Your task to perform on an android device: Go to ESPN.com Image 0: 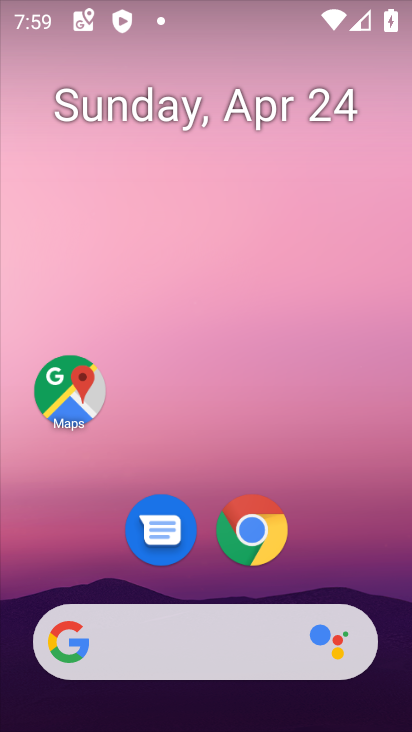
Step 0: click (251, 537)
Your task to perform on an android device: Go to ESPN.com Image 1: 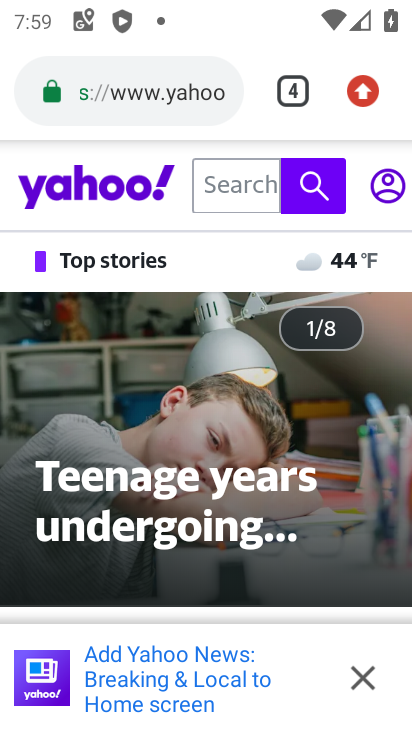
Step 1: click (183, 102)
Your task to perform on an android device: Go to ESPN.com Image 2: 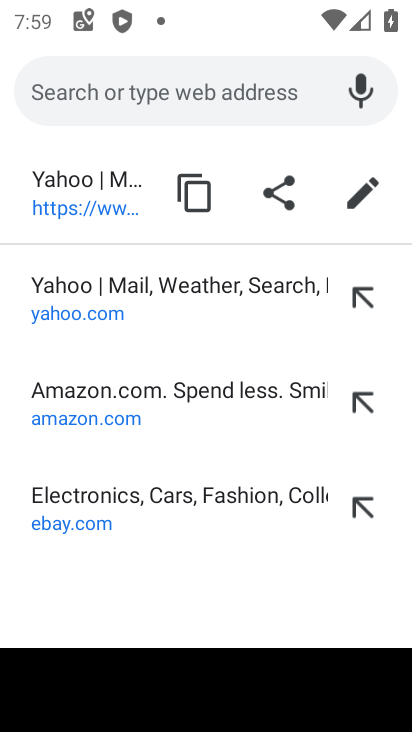
Step 2: type "espn.com"
Your task to perform on an android device: Go to ESPN.com Image 3: 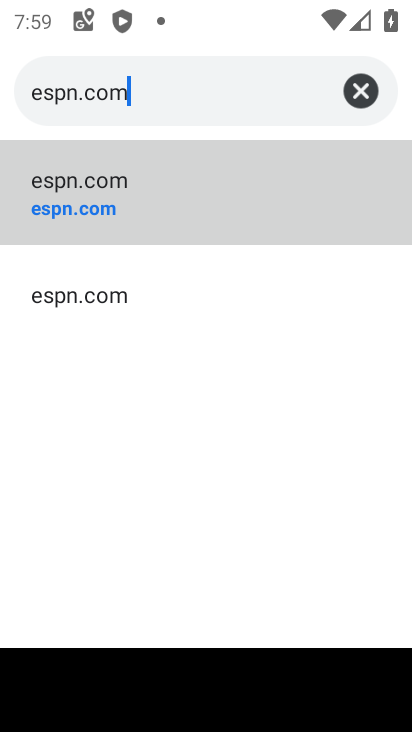
Step 3: type ""
Your task to perform on an android device: Go to ESPN.com Image 4: 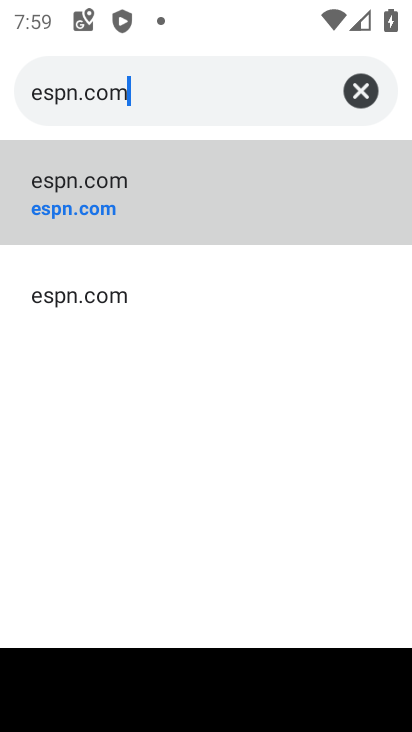
Step 4: click (206, 204)
Your task to perform on an android device: Go to ESPN.com Image 5: 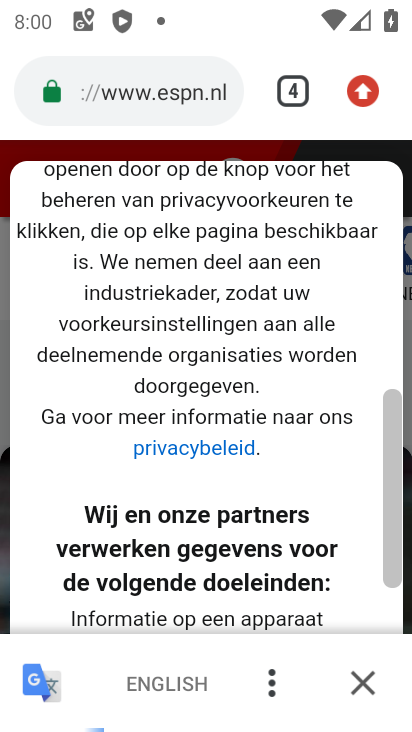
Step 5: task complete